Your task to perform on an android device: Open Google Chrome Image 0: 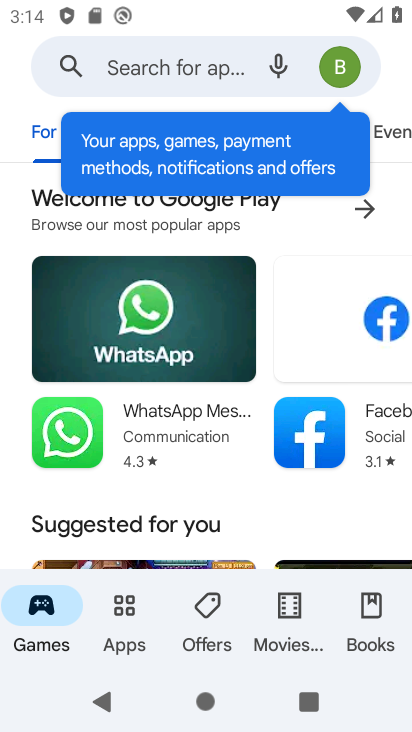
Step 0: press home button
Your task to perform on an android device: Open Google Chrome Image 1: 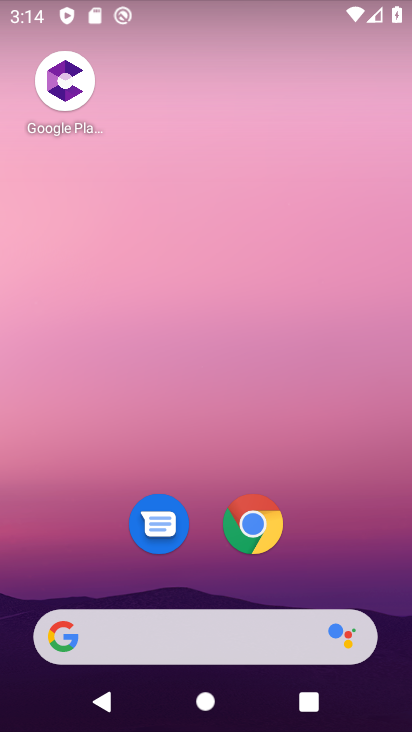
Step 1: click (265, 520)
Your task to perform on an android device: Open Google Chrome Image 2: 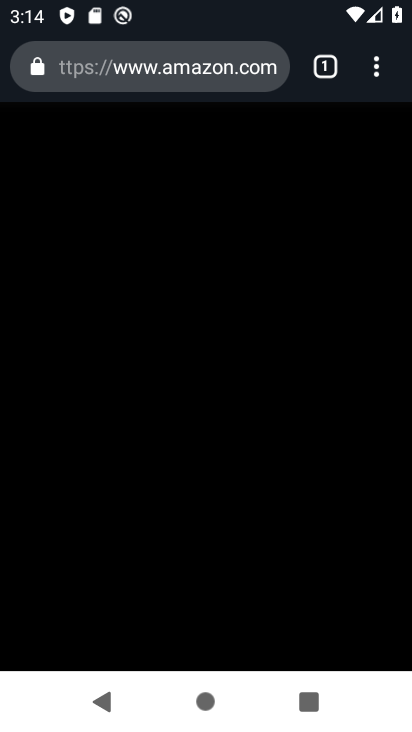
Step 2: click (377, 64)
Your task to perform on an android device: Open Google Chrome Image 3: 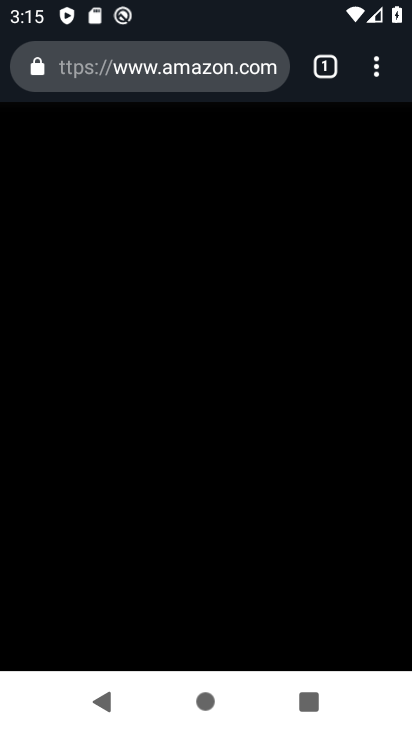
Step 3: click (377, 64)
Your task to perform on an android device: Open Google Chrome Image 4: 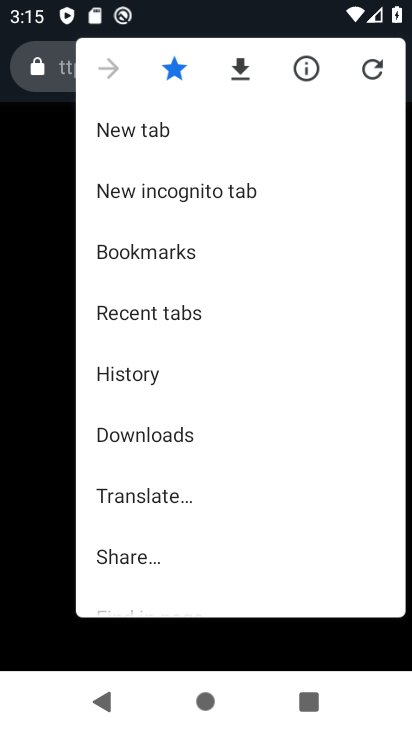
Step 4: click (181, 129)
Your task to perform on an android device: Open Google Chrome Image 5: 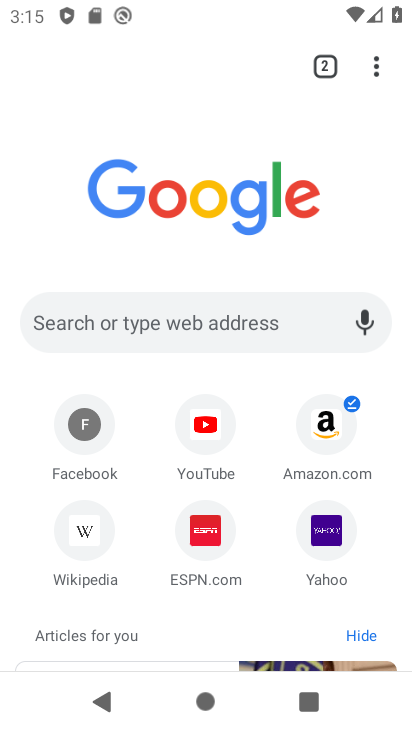
Step 5: task complete